Your task to perform on an android device: remove spam from my inbox in the gmail app Image 0: 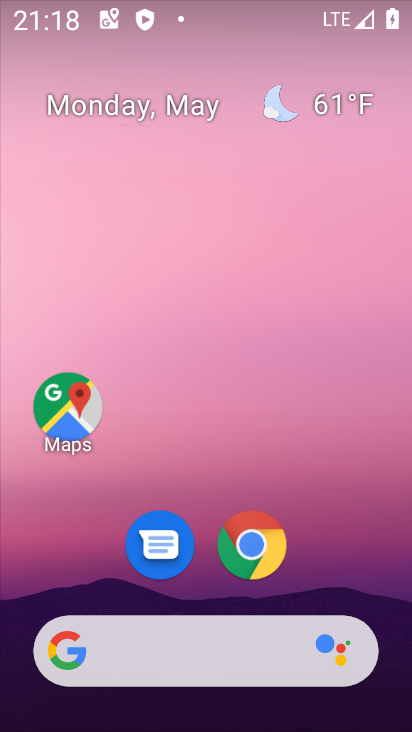
Step 0: drag from (190, 661) to (131, 220)
Your task to perform on an android device: remove spam from my inbox in the gmail app Image 1: 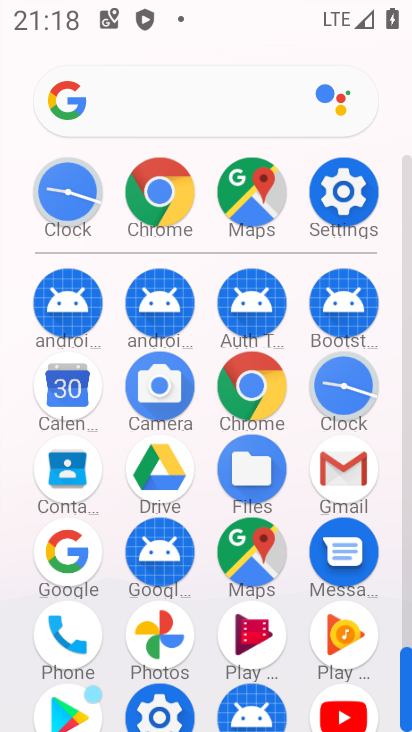
Step 1: click (335, 473)
Your task to perform on an android device: remove spam from my inbox in the gmail app Image 2: 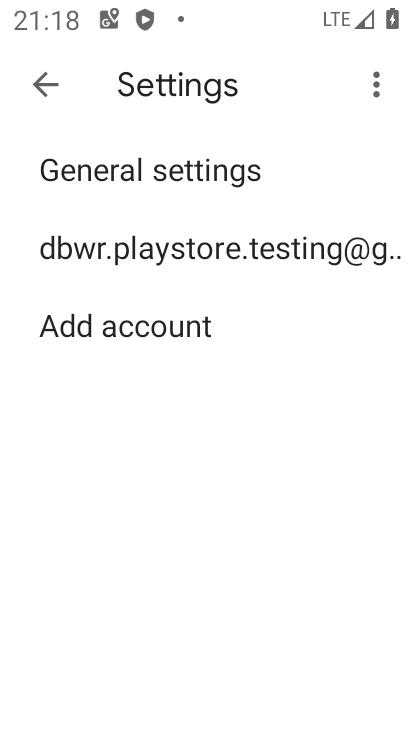
Step 2: click (42, 92)
Your task to perform on an android device: remove spam from my inbox in the gmail app Image 3: 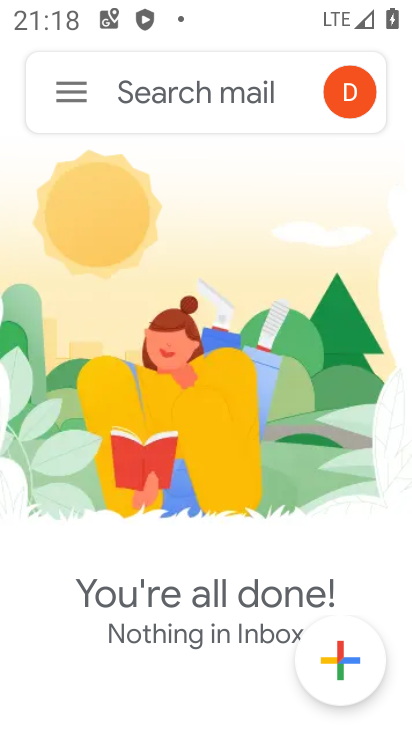
Step 3: click (70, 94)
Your task to perform on an android device: remove spam from my inbox in the gmail app Image 4: 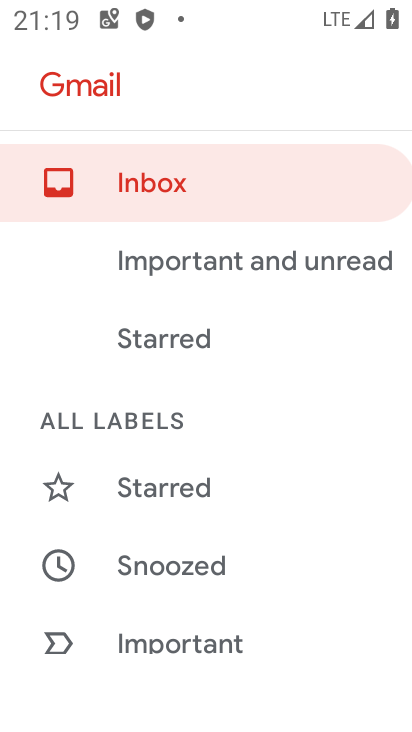
Step 4: drag from (195, 536) to (192, 40)
Your task to perform on an android device: remove spam from my inbox in the gmail app Image 5: 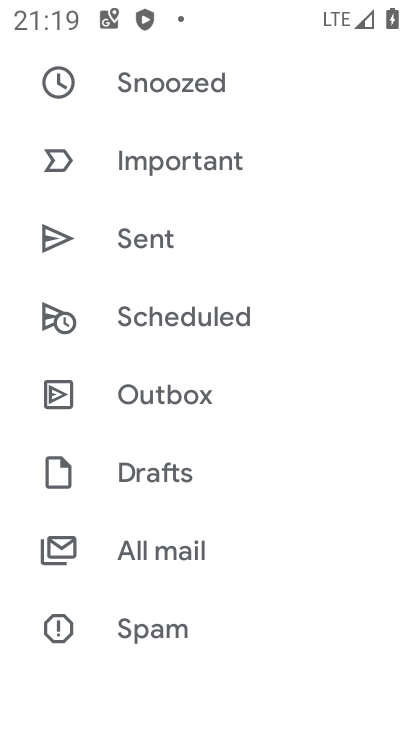
Step 5: click (171, 635)
Your task to perform on an android device: remove spam from my inbox in the gmail app Image 6: 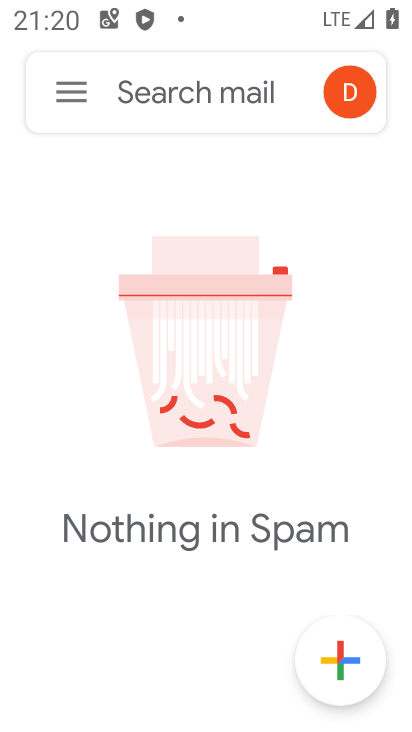
Step 6: click (65, 110)
Your task to perform on an android device: remove spam from my inbox in the gmail app Image 7: 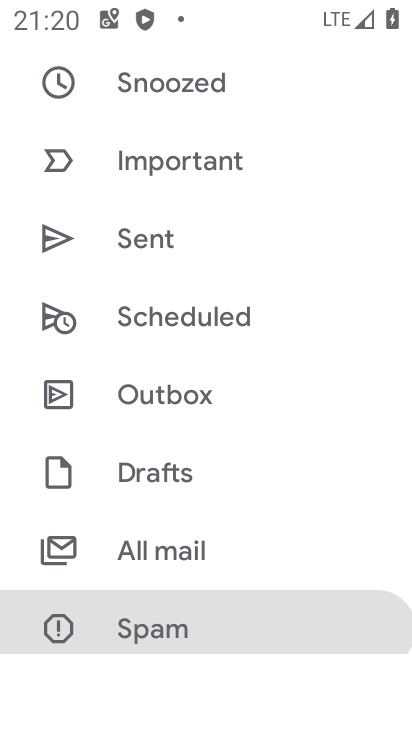
Step 7: drag from (217, 250) to (183, 323)
Your task to perform on an android device: remove spam from my inbox in the gmail app Image 8: 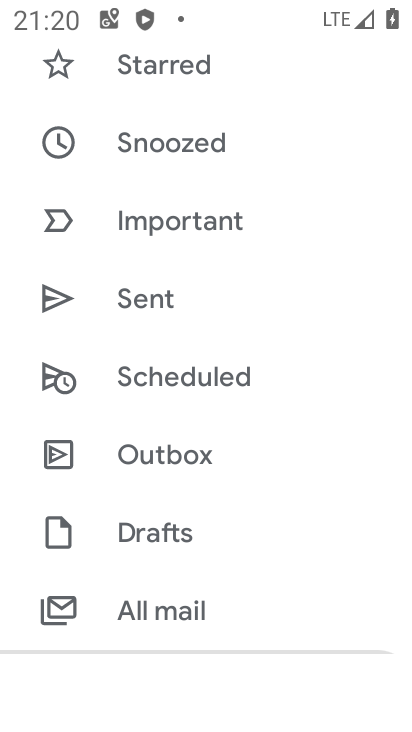
Step 8: drag from (224, 506) to (202, 214)
Your task to perform on an android device: remove spam from my inbox in the gmail app Image 9: 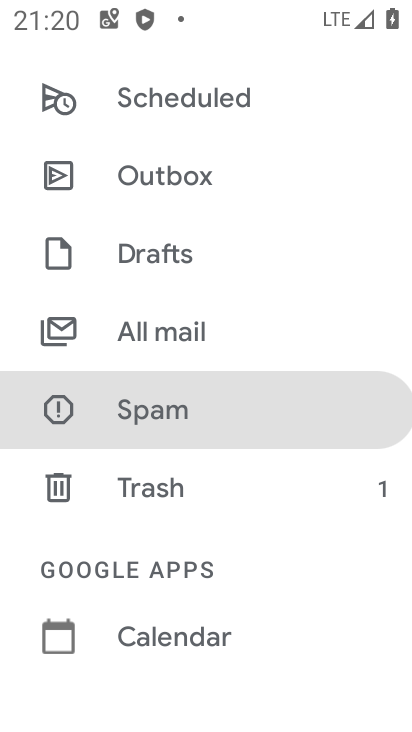
Step 9: click (170, 430)
Your task to perform on an android device: remove spam from my inbox in the gmail app Image 10: 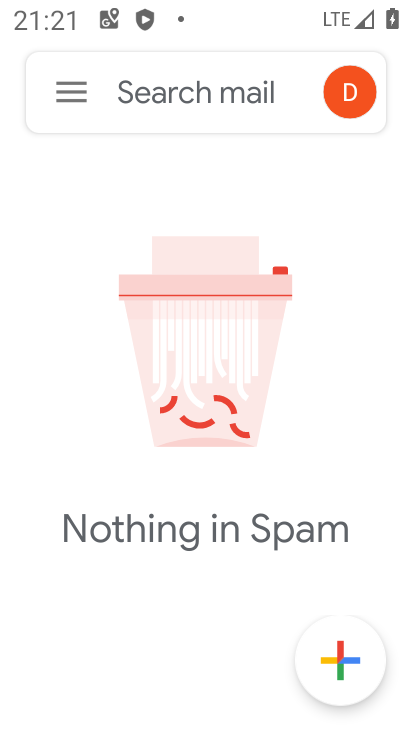
Step 10: task complete